Your task to perform on an android device: turn off sleep mode Image 0: 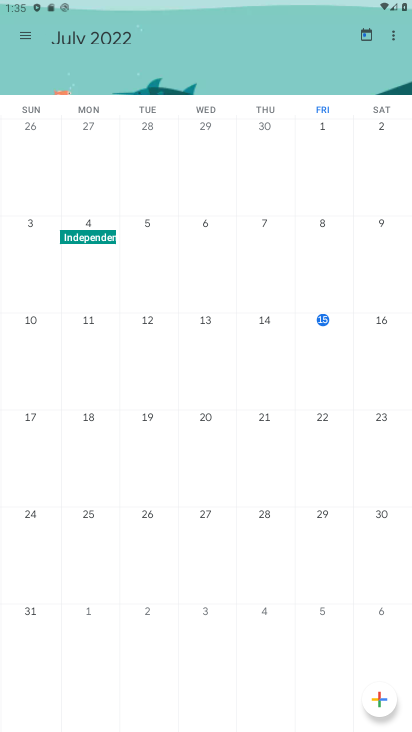
Step 0: press home button
Your task to perform on an android device: turn off sleep mode Image 1: 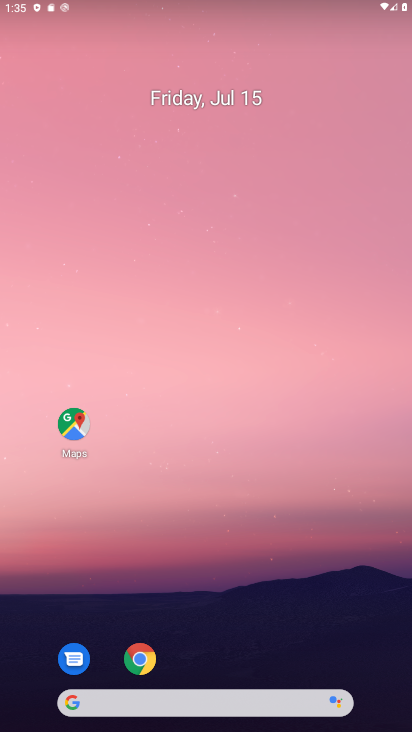
Step 1: drag from (257, 669) to (261, 259)
Your task to perform on an android device: turn off sleep mode Image 2: 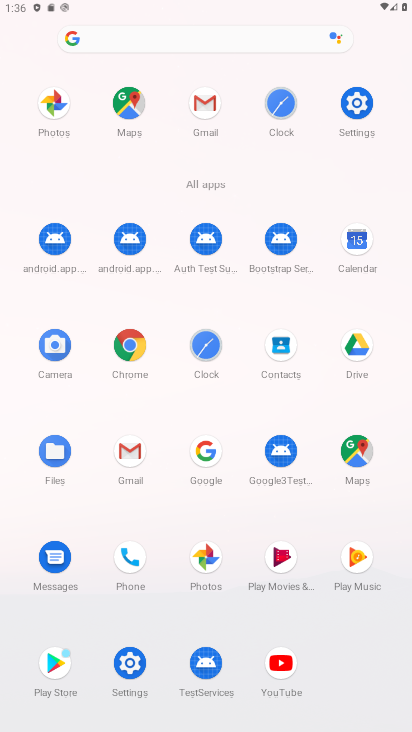
Step 2: click (358, 104)
Your task to perform on an android device: turn off sleep mode Image 3: 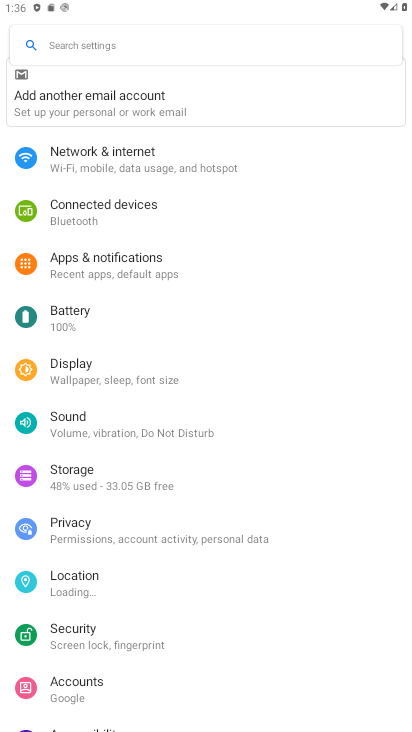
Step 3: task complete